Your task to perform on an android device: toggle sleep mode Image 0: 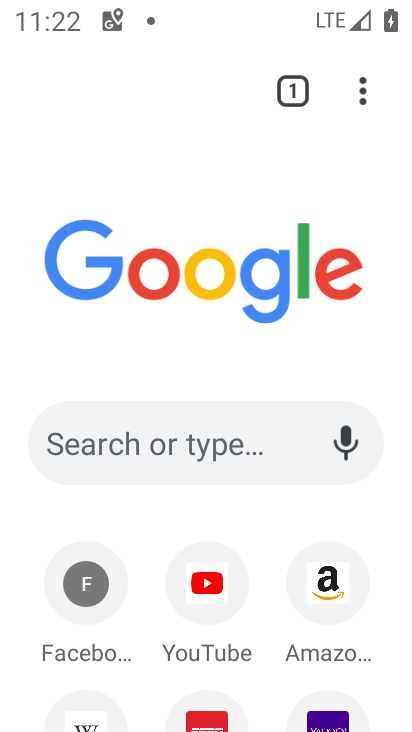
Step 0: press home button
Your task to perform on an android device: toggle sleep mode Image 1: 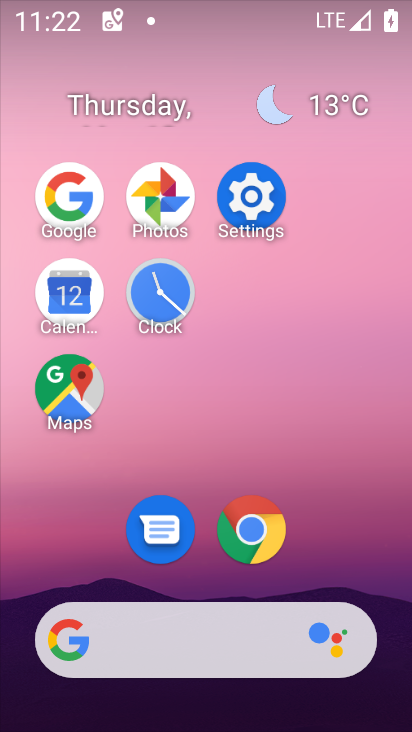
Step 1: click (244, 190)
Your task to perform on an android device: toggle sleep mode Image 2: 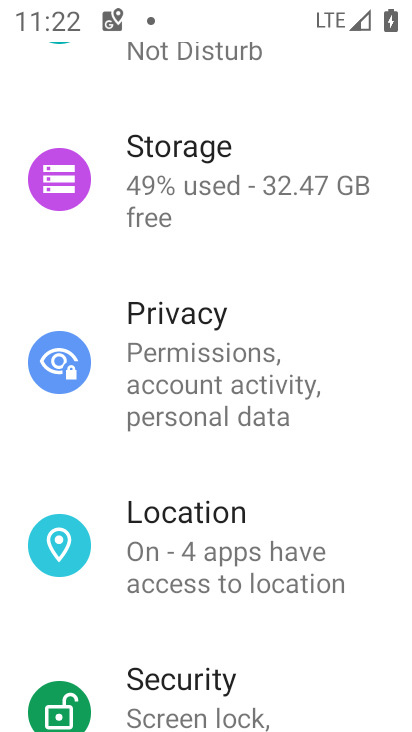
Step 2: drag from (354, 198) to (326, 540)
Your task to perform on an android device: toggle sleep mode Image 3: 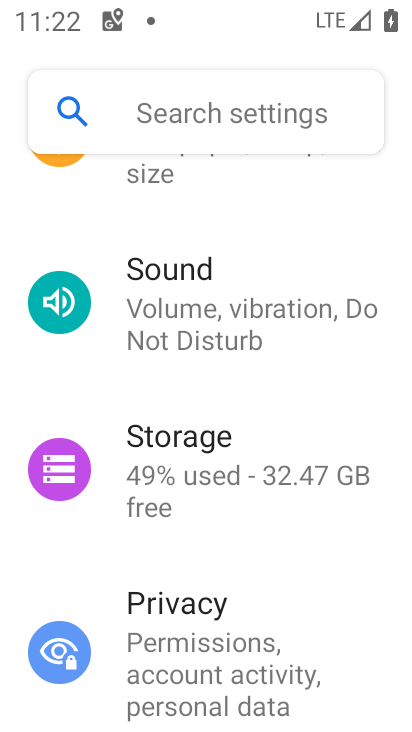
Step 3: drag from (305, 177) to (297, 600)
Your task to perform on an android device: toggle sleep mode Image 4: 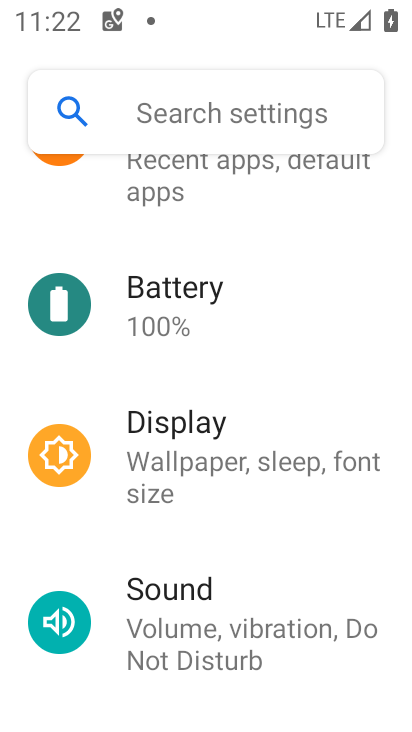
Step 4: click (300, 499)
Your task to perform on an android device: toggle sleep mode Image 5: 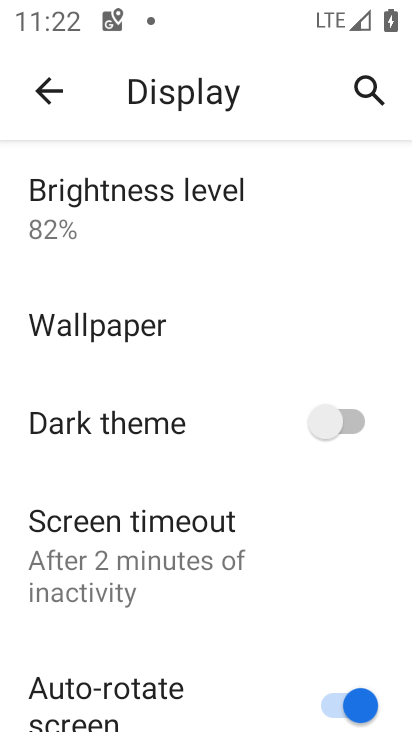
Step 5: click (242, 520)
Your task to perform on an android device: toggle sleep mode Image 6: 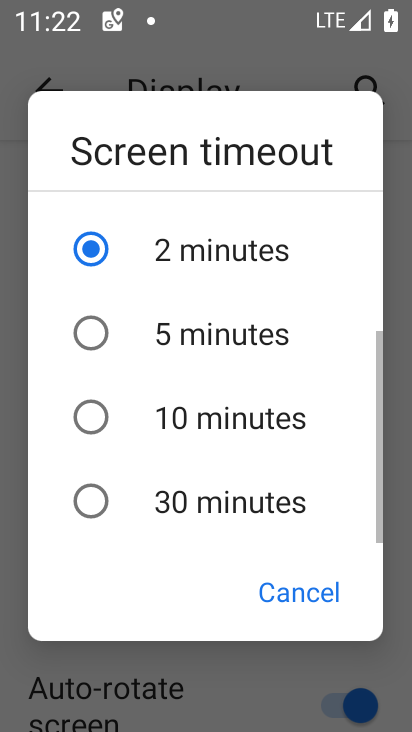
Step 6: click (139, 340)
Your task to perform on an android device: toggle sleep mode Image 7: 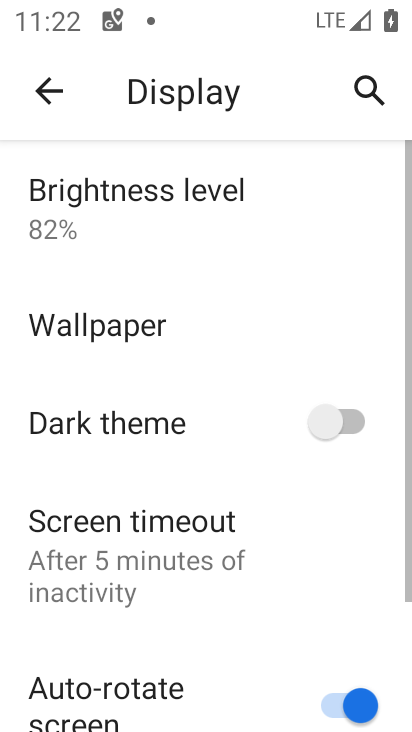
Step 7: task complete